Your task to perform on an android device: Go to notification settings Image 0: 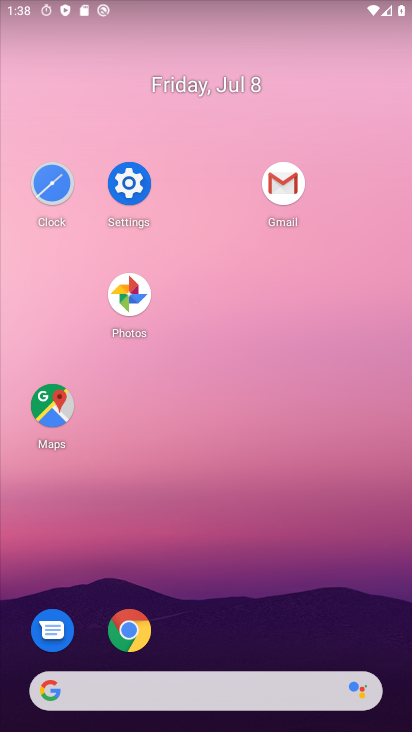
Step 0: click (126, 179)
Your task to perform on an android device: Go to notification settings Image 1: 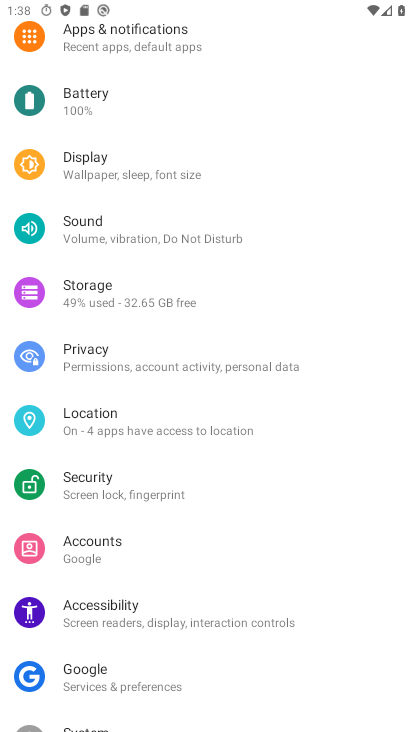
Step 1: click (214, 51)
Your task to perform on an android device: Go to notification settings Image 2: 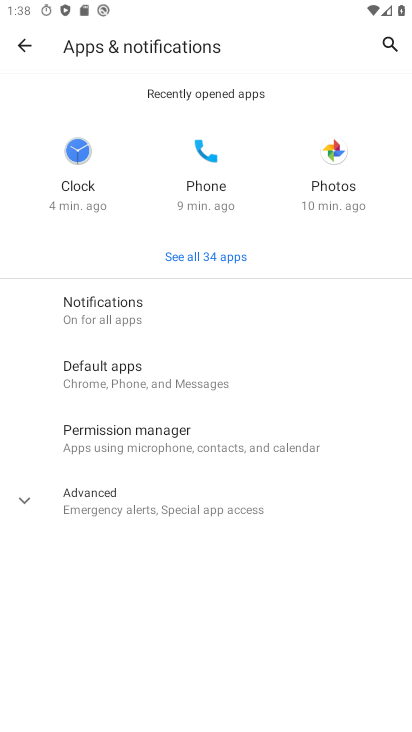
Step 2: task complete